Your task to perform on an android device: Open Android settings Image 0: 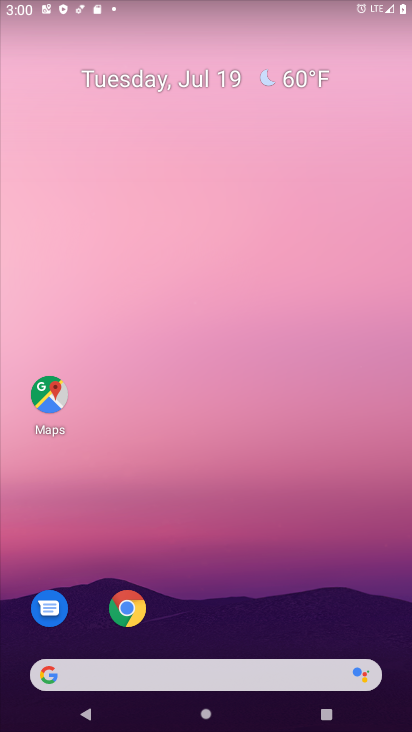
Step 0: drag from (273, 601) to (270, 32)
Your task to perform on an android device: Open Android settings Image 1: 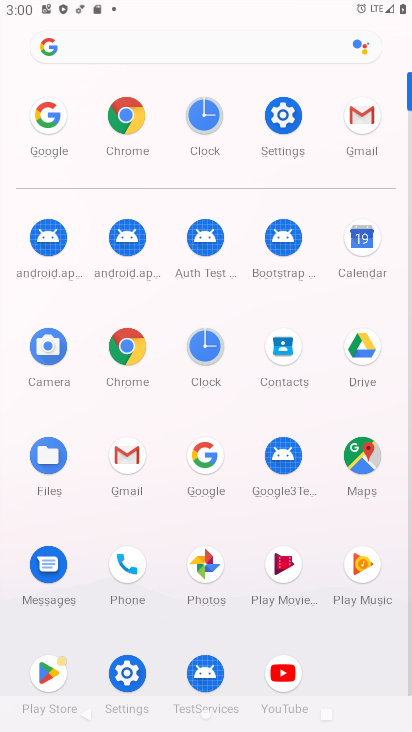
Step 1: click (286, 102)
Your task to perform on an android device: Open Android settings Image 2: 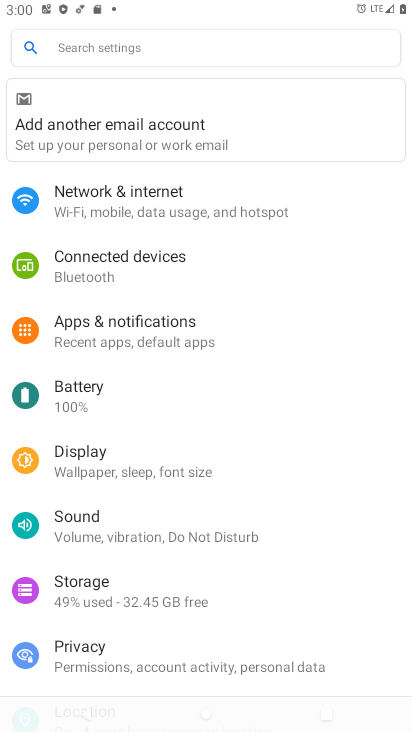
Step 2: task complete